Your task to perform on an android device: turn on wifi Image 0: 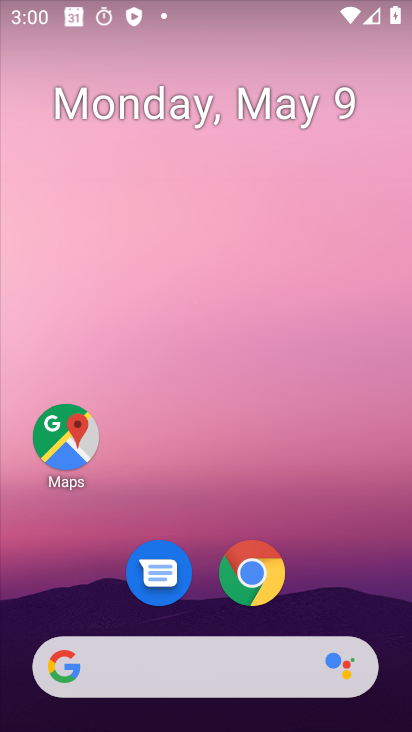
Step 0: drag from (257, 687) to (213, 118)
Your task to perform on an android device: turn on wifi Image 1: 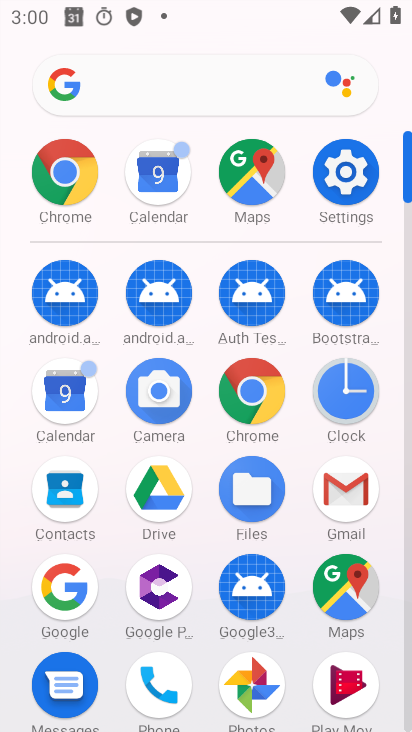
Step 1: click (346, 185)
Your task to perform on an android device: turn on wifi Image 2: 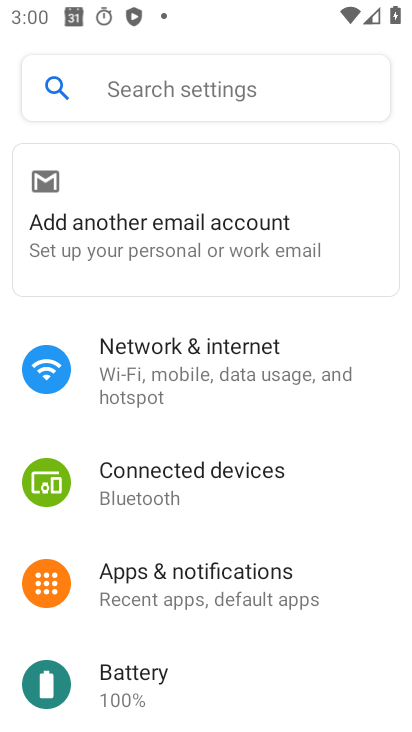
Step 2: click (237, 365)
Your task to perform on an android device: turn on wifi Image 3: 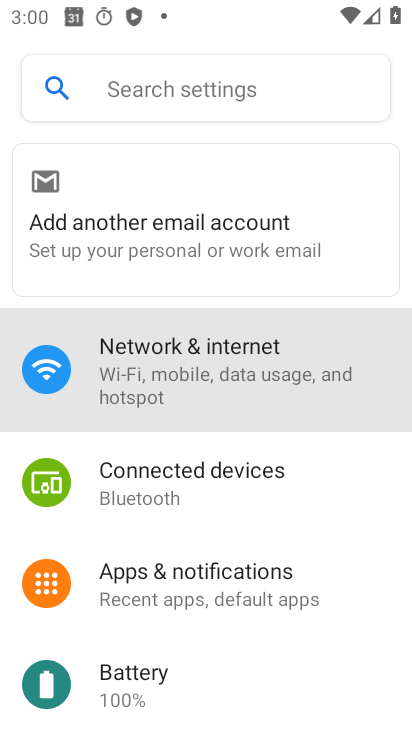
Step 3: click (238, 363)
Your task to perform on an android device: turn on wifi Image 4: 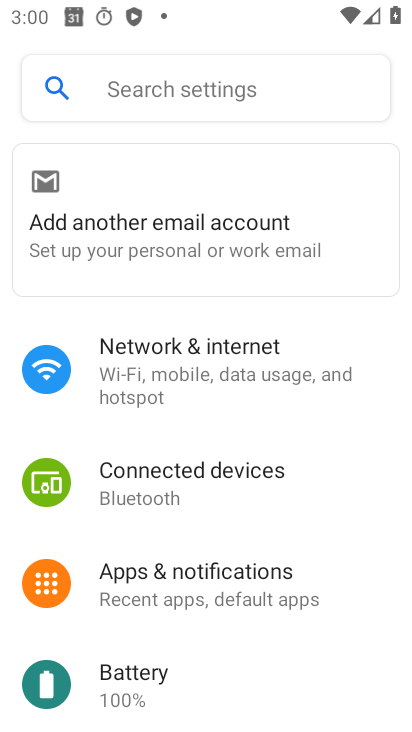
Step 4: click (239, 362)
Your task to perform on an android device: turn on wifi Image 5: 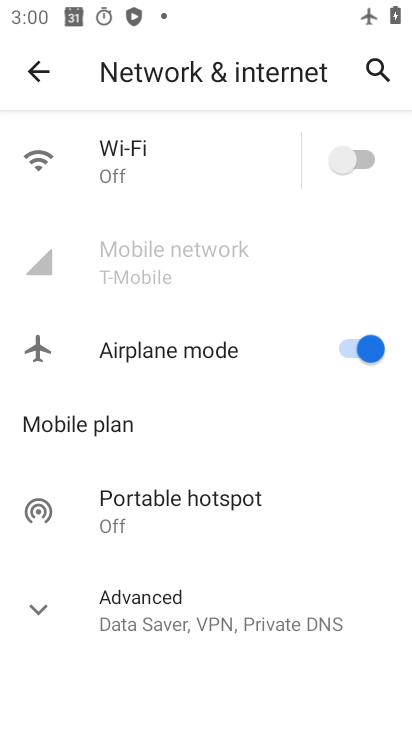
Step 5: click (354, 166)
Your task to perform on an android device: turn on wifi Image 6: 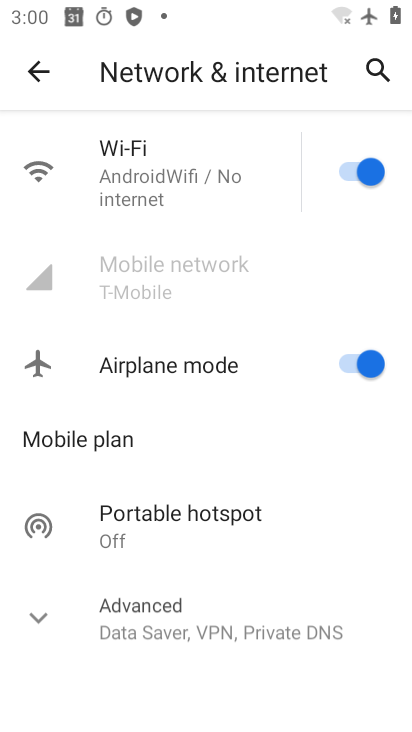
Step 6: click (364, 353)
Your task to perform on an android device: turn on wifi Image 7: 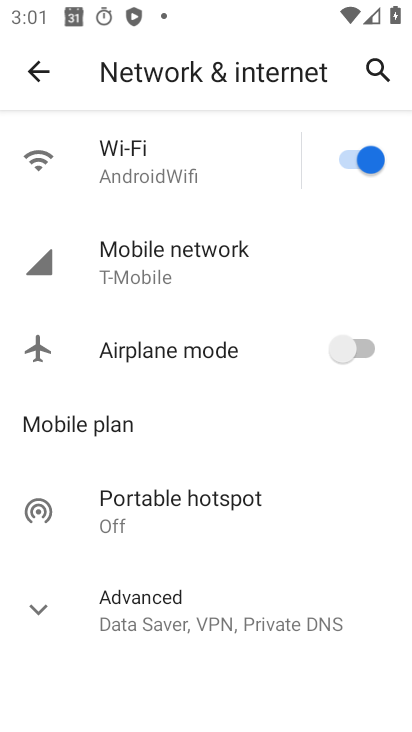
Step 7: task complete